Your task to perform on an android device: toggle priority inbox in the gmail app Image 0: 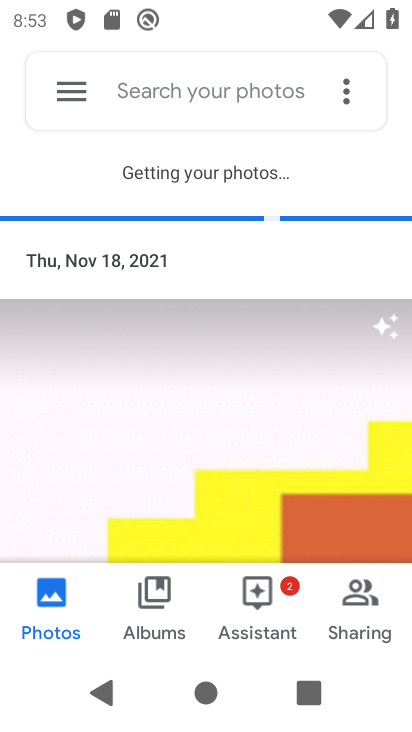
Step 0: press home button
Your task to perform on an android device: toggle priority inbox in the gmail app Image 1: 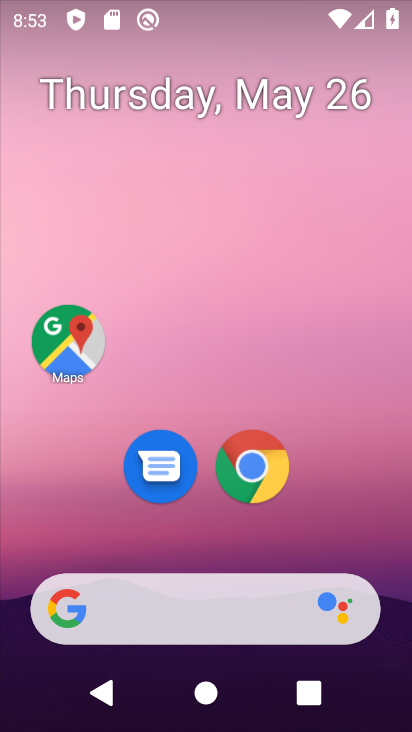
Step 1: drag from (352, 513) to (236, 47)
Your task to perform on an android device: toggle priority inbox in the gmail app Image 2: 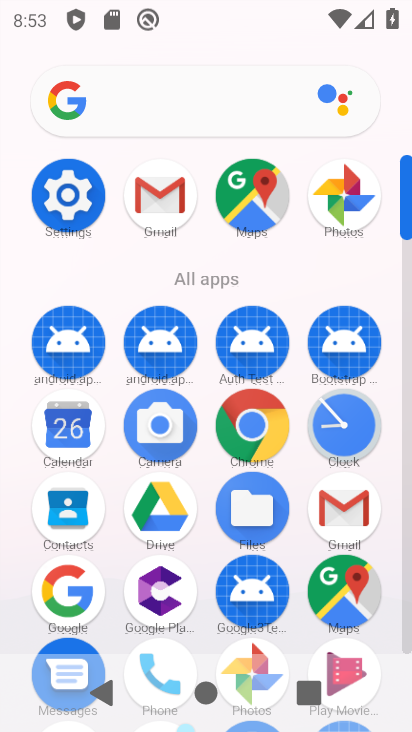
Step 2: click (160, 201)
Your task to perform on an android device: toggle priority inbox in the gmail app Image 3: 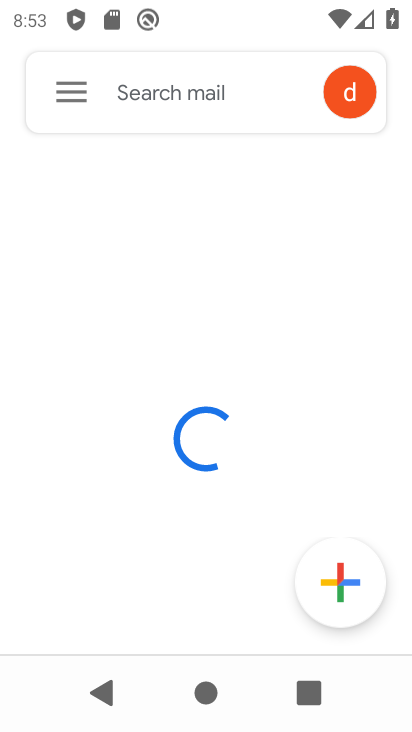
Step 3: click (71, 101)
Your task to perform on an android device: toggle priority inbox in the gmail app Image 4: 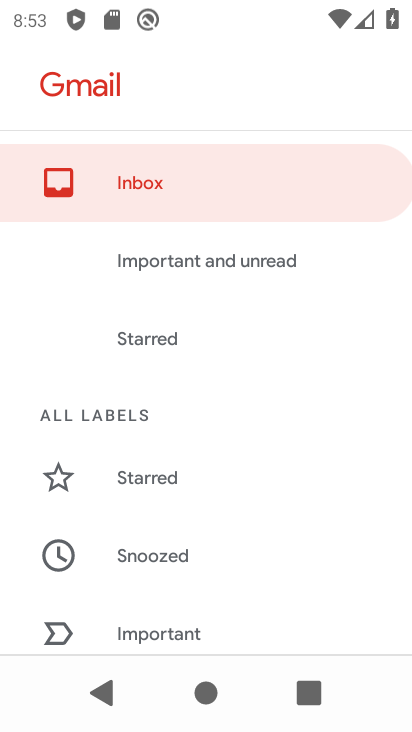
Step 4: drag from (236, 525) to (197, 215)
Your task to perform on an android device: toggle priority inbox in the gmail app Image 5: 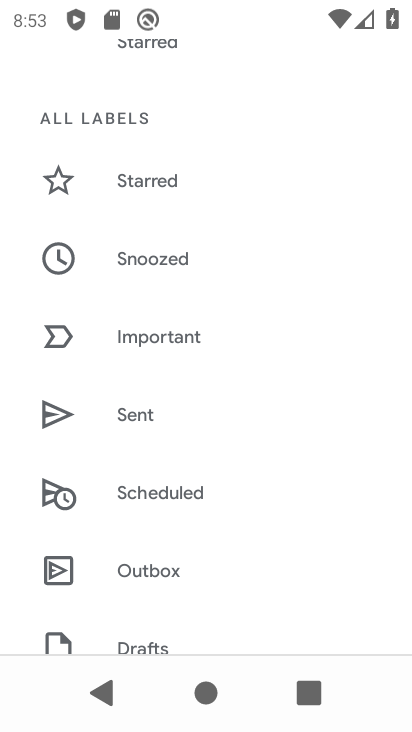
Step 5: drag from (228, 515) to (212, 192)
Your task to perform on an android device: toggle priority inbox in the gmail app Image 6: 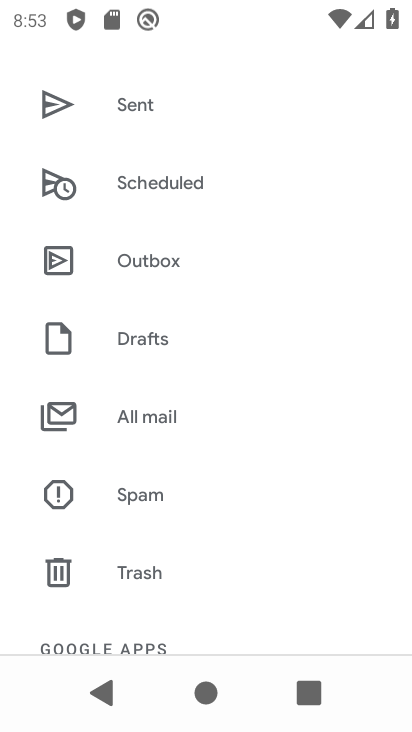
Step 6: drag from (258, 380) to (243, 129)
Your task to perform on an android device: toggle priority inbox in the gmail app Image 7: 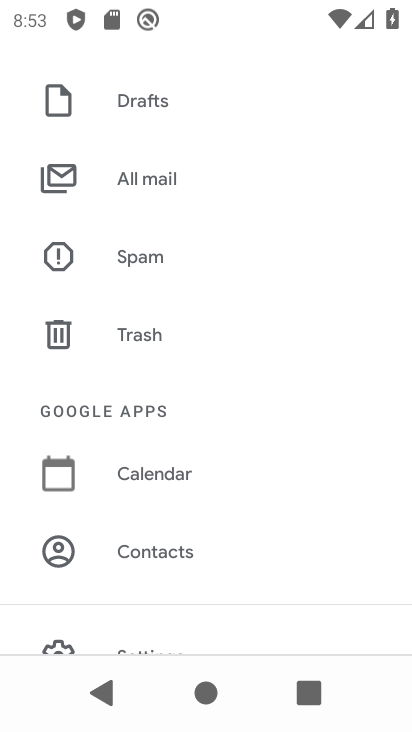
Step 7: drag from (231, 547) to (203, 225)
Your task to perform on an android device: toggle priority inbox in the gmail app Image 8: 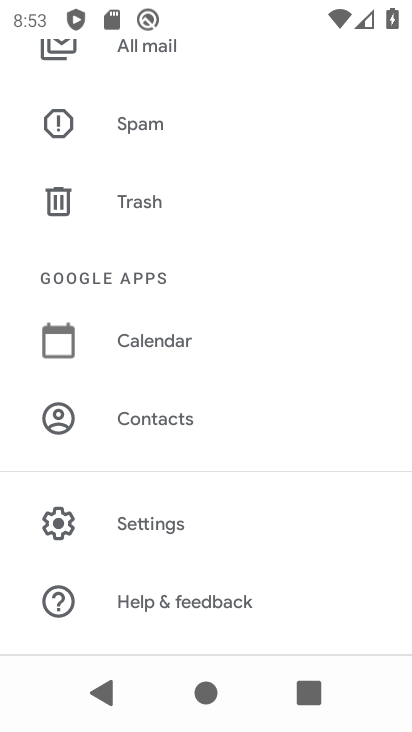
Step 8: click (150, 508)
Your task to perform on an android device: toggle priority inbox in the gmail app Image 9: 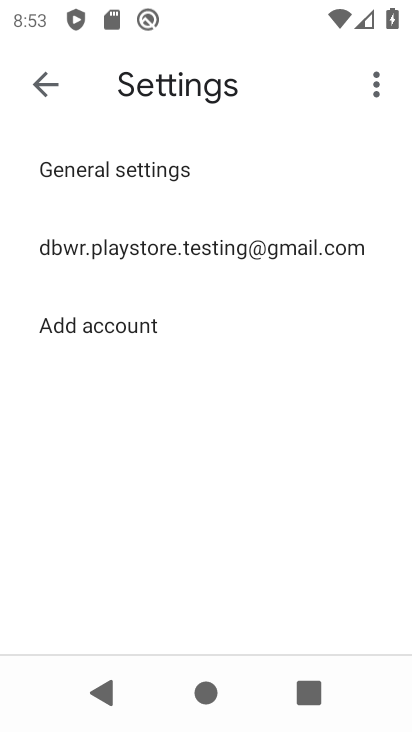
Step 9: click (115, 247)
Your task to perform on an android device: toggle priority inbox in the gmail app Image 10: 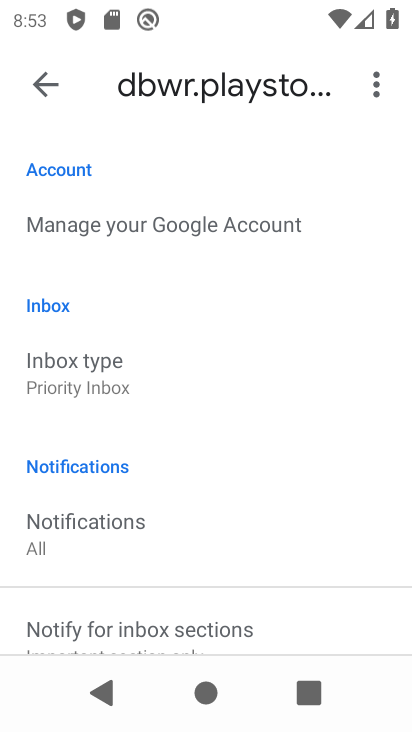
Step 10: click (70, 365)
Your task to perform on an android device: toggle priority inbox in the gmail app Image 11: 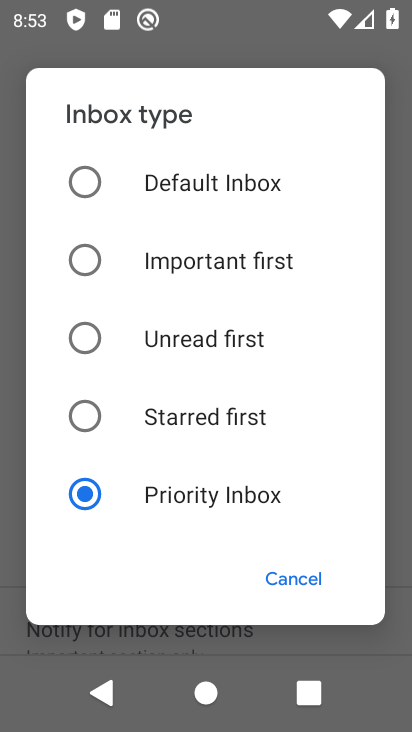
Step 11: click (82, 194)
Your task to perform on an android device: toggle priority inbox in the gmail app Image 12: 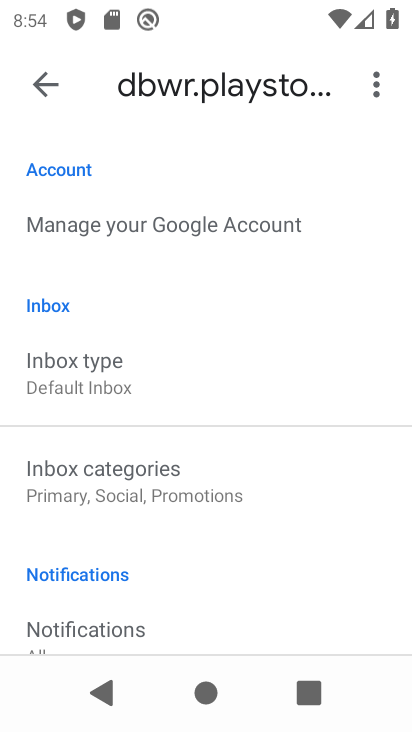
Step 12: task complete